Your task to perform on an android device: open wifi settings Image 0: 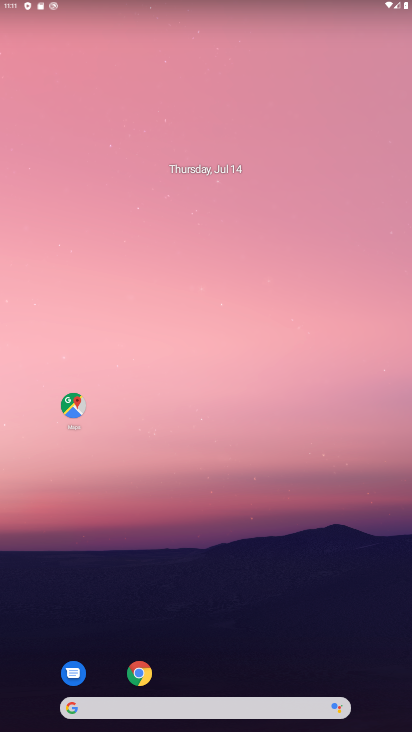
Step 0: drag from (87, 3) to (141, 545)
Your task to perform on an android device: open wifi settings Image 1: 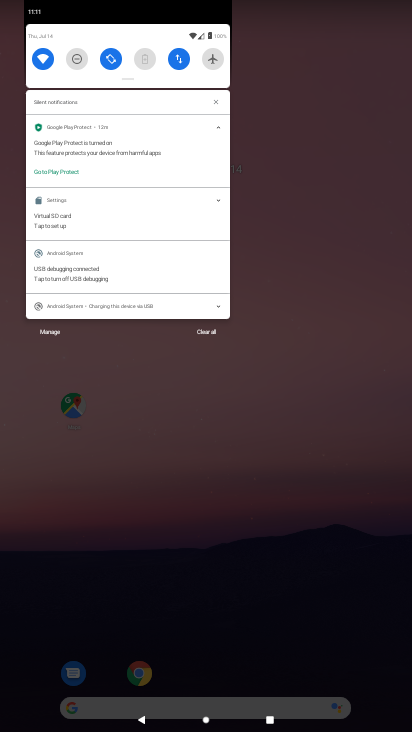
Step 1: click (38, 60)
Your task to perform on an android device: open wifi settings Image 2: 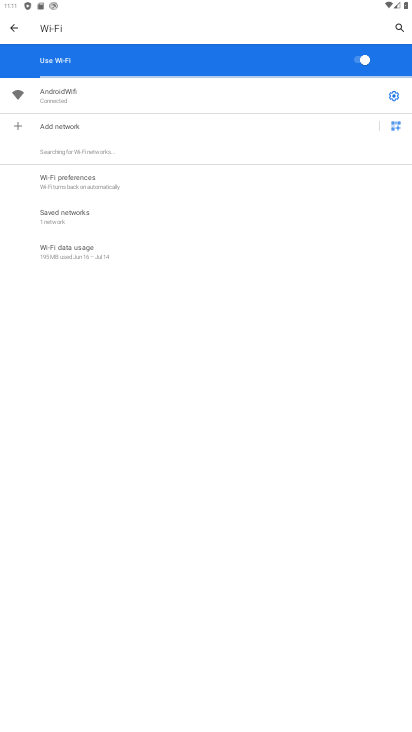
Step 2: task complete